Your task to perform on an android device: turn on javascript in the chrome app Image 0: 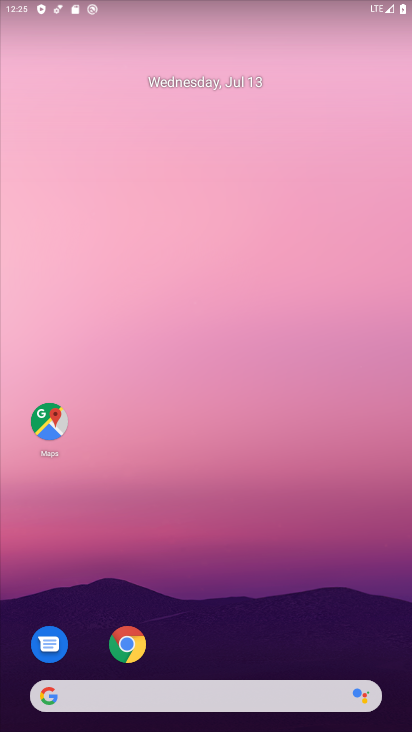
Step 0: click (228, 55)
Your task to perform on an android device: turn on javascript in the chrome app Image 1: 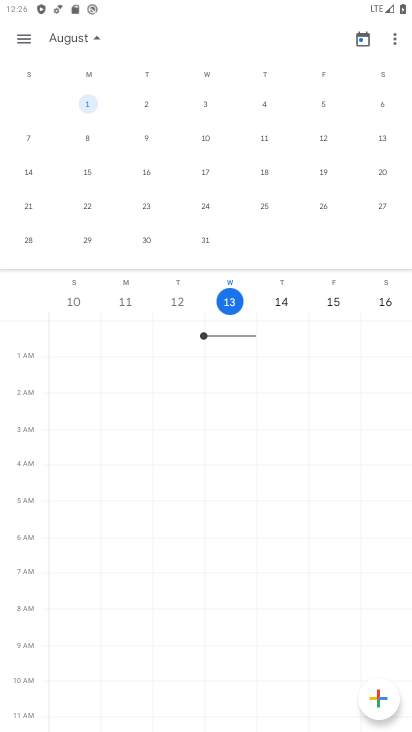
Step 1: press home button
Your task to perform on an android device: turn on javascript in the chrome app Image 2: 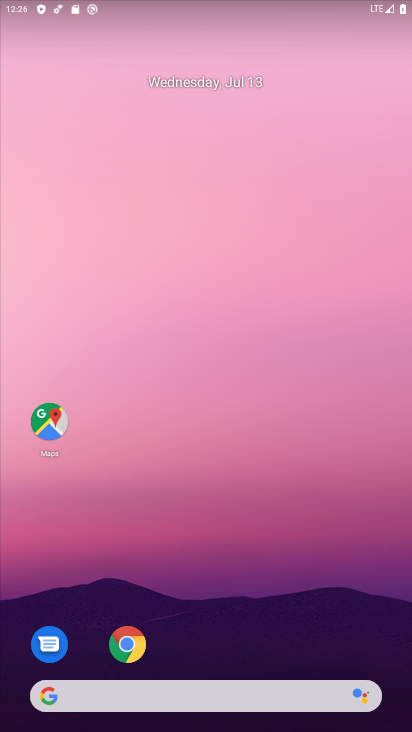
Step 2: click (119, 661)
Your task to perform on an android device: turn on javascript in the chrome app Image 3: 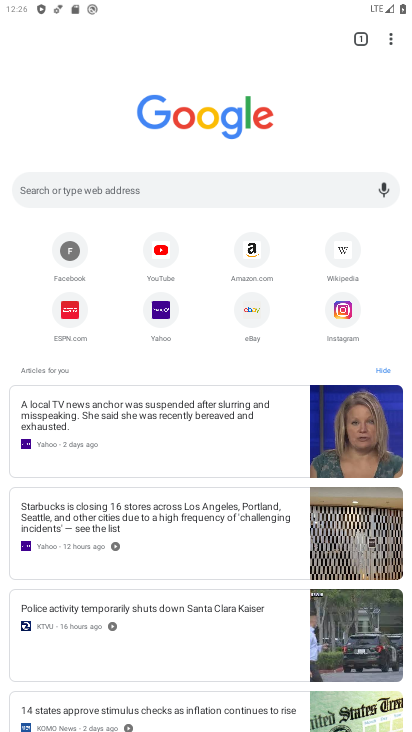
Step 3: click (389, 40)
Your task to perform on an android device: turn on javascript in the chrome app Image 4: 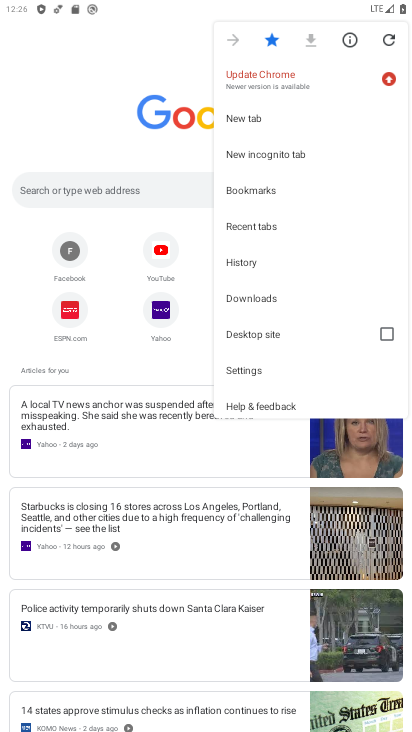
Step 4: click (258, 368)
Your task to perform on an android device: turn on javascript in the chrome app Image 5: 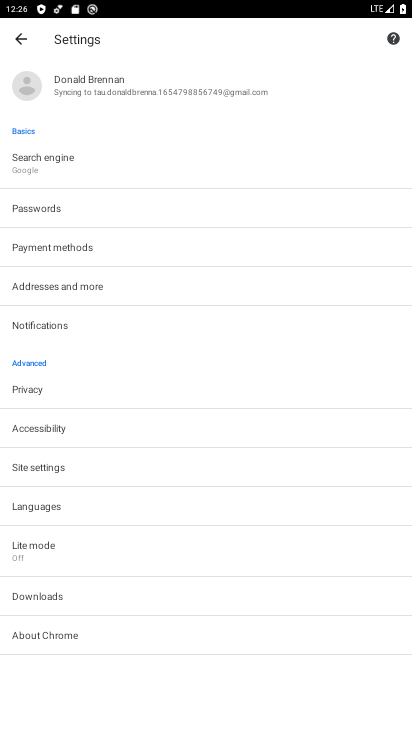
Step 5: click (36, 476)
Your task to perform on an android device: turn on javascript in the chrome app Image 6: 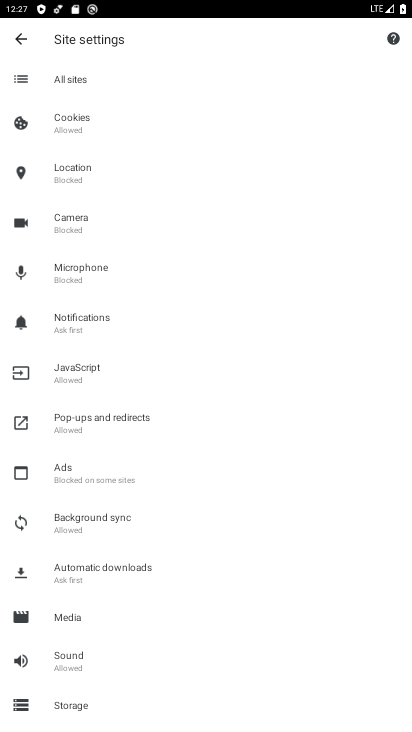
Step 6: click (69, 370)
Your task to perform on an android device: turn on javascript in the chrome app Image 7: 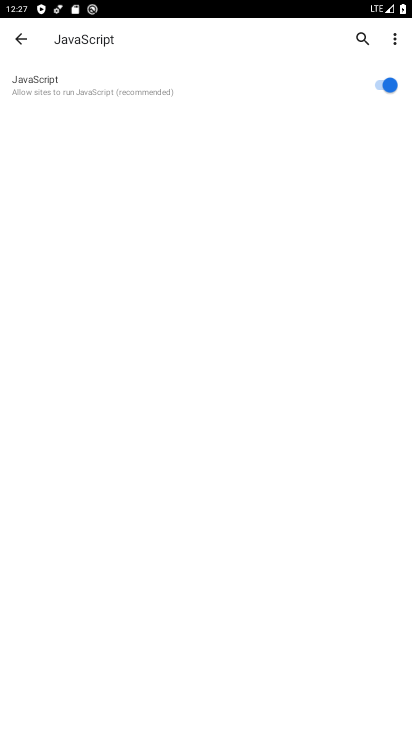
Step 7: task complete